Your task to perform on an android device: Is it going to rain tomorrow? Image 0: 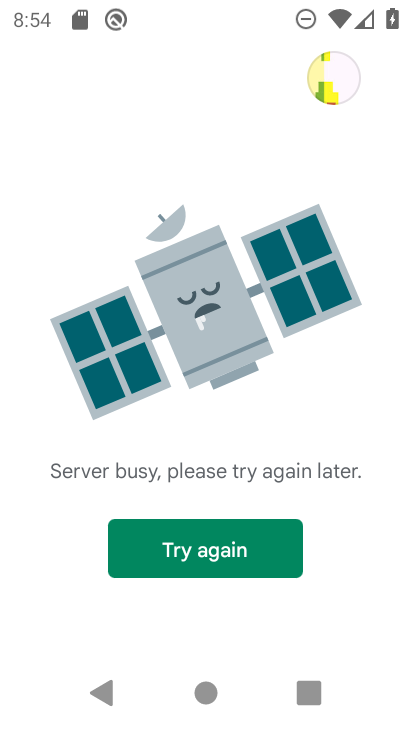
Step 0: press home button
Your task to perform on an android device: Is it going to rain tomorrow? Image 1: 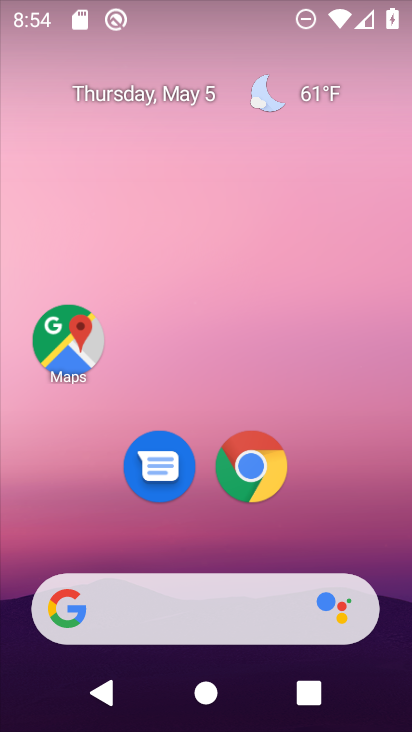
Step 1: click (291, 111)
Your task to perform on an android device: Is it going to rain tomorrow? Image 2: 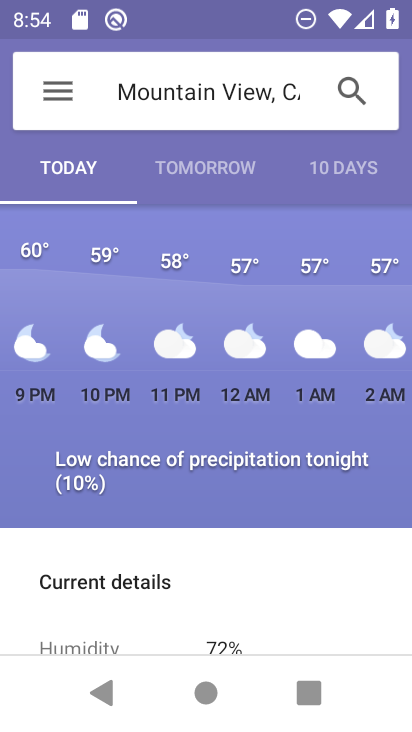
Step 2: click (207, 162)
Your task to perform on an android device: Is it going to rain tomorrow? Image 3: 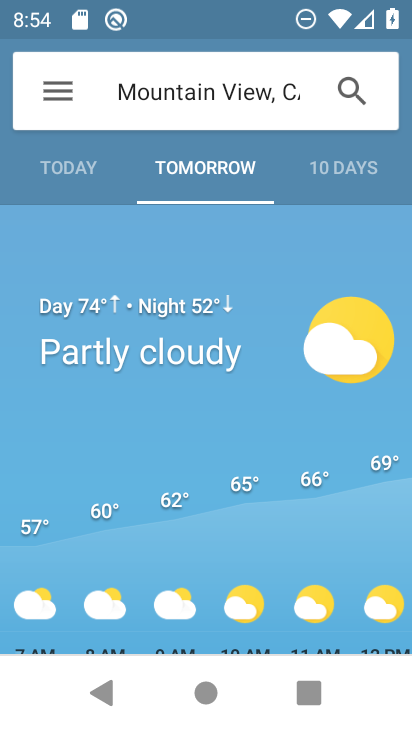
Step 3: task complete